Your task to perform on an android device: check storage Image 0: 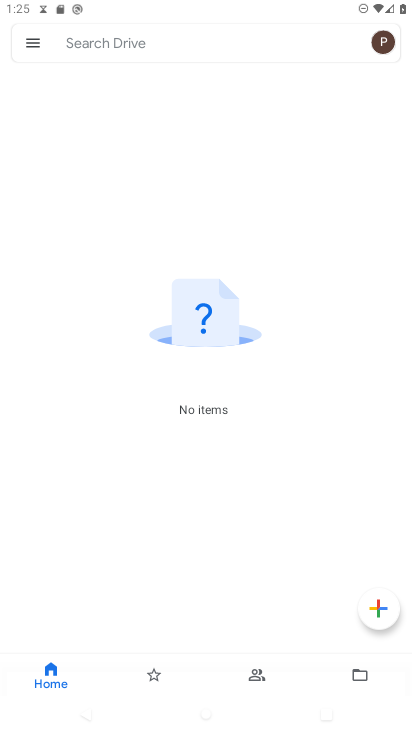
Step 0: press home button
Your task to perform on an android device: check storage Image 1: 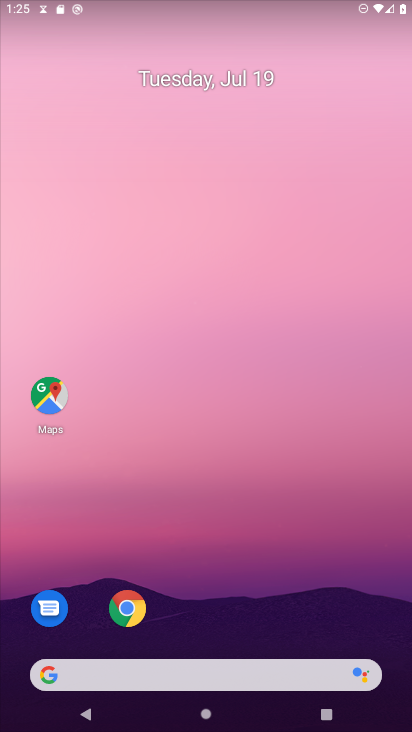
Step 1: drag from (272, 675) to (318, 18)
Your task to perform on an android device: check storage Image 2: 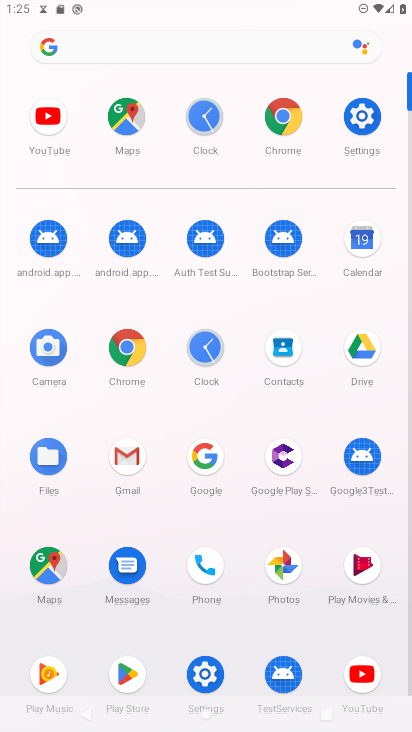
Step 2: click (374, 118)
Your task to perform on an android device: check storage Image 3: 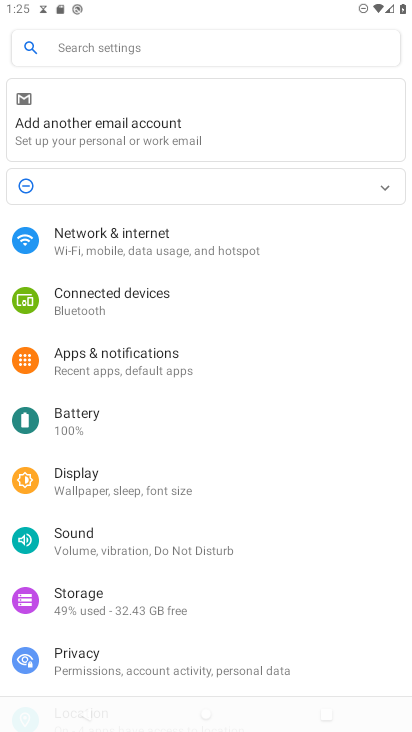
Step 3: click (117, 606)
Your task to perform on an android device: check storage Image 4: 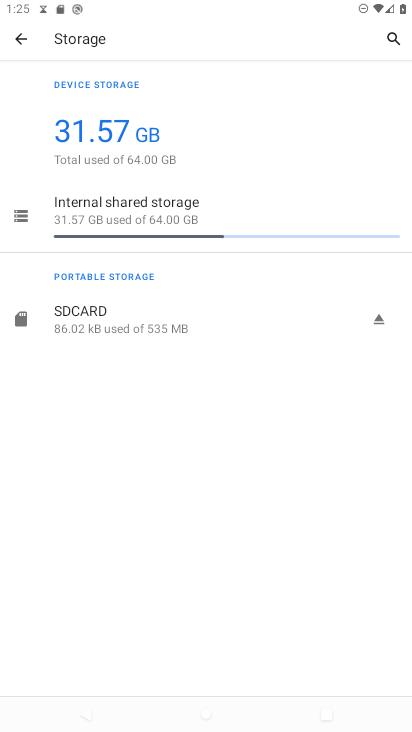
Step 4: task complete